Your task to perform on an android device: delete browsing data in the chrome app Image 0: 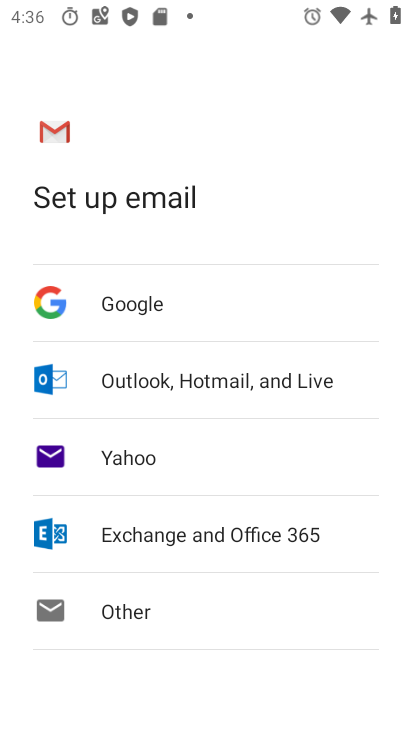
Step 0: press home button
Your task to perform on an android device: delete browsing data in the chrome app Image 1: 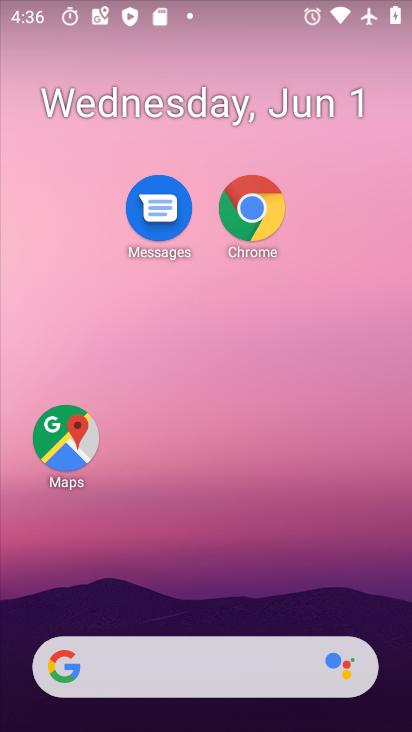
Step 1: click (262, 216)
Your task to perform on an android device: delete browsing data in the chrome app Image 2: 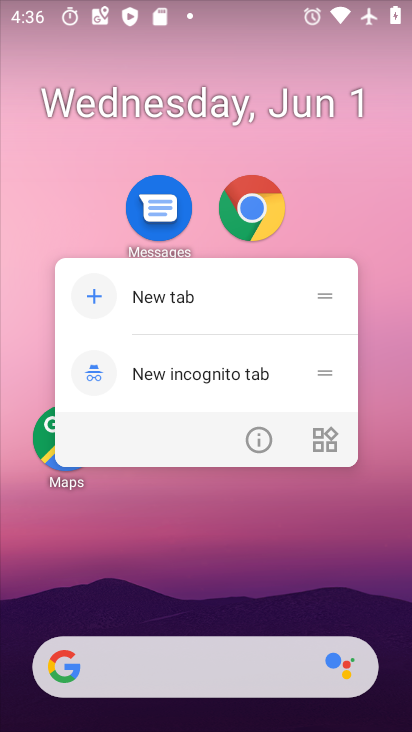
Step 2: click (262, 216)
Your task to perform on an android device: delete browsing data in the chrome app Image 3: 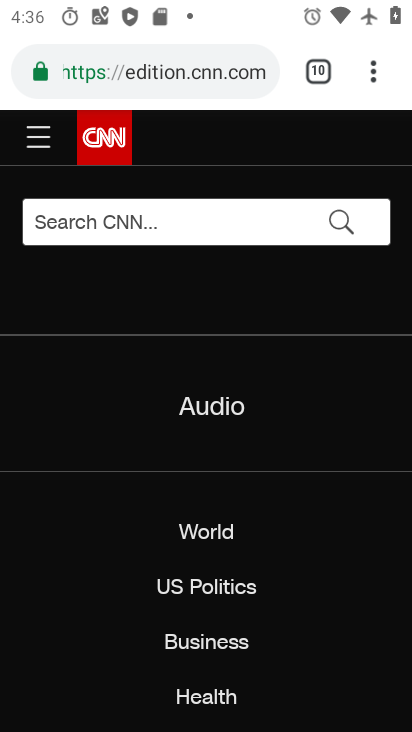
Step 3: drag from (368, 76) to (131, 385)
Your task to perform on an android device: delete browsing data in the chrome app Image 4: 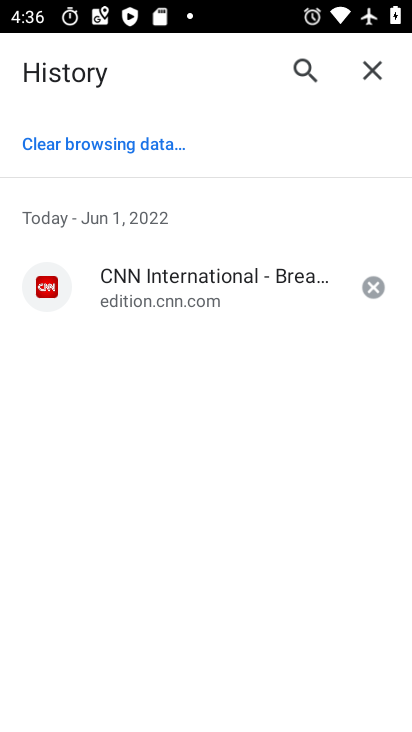
Step 4: click (168, 145)
Your task to perform on an android device: delete browsing data in the chrome app Image 5: 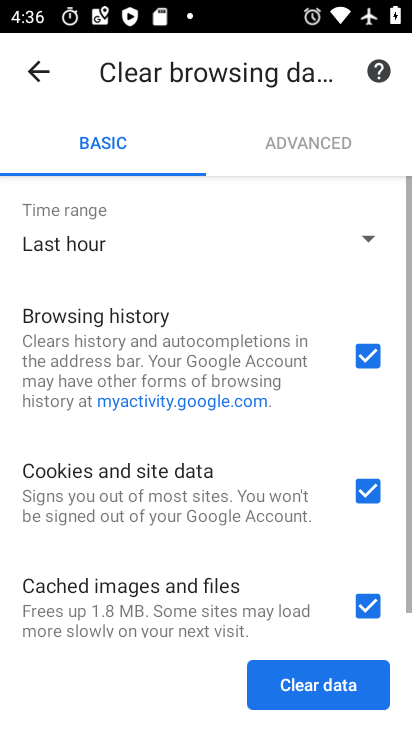
Step 5: click (280, 664)
Your task to perform on an android device: delete browsing data in the chrome app Image 6: 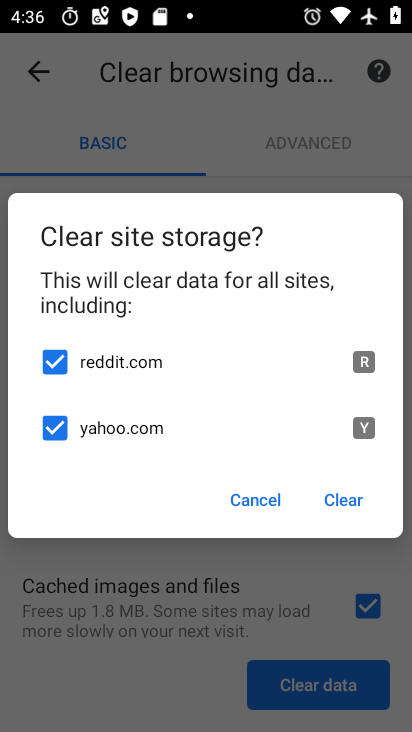
Step 6: click (344, 487)
Your task to perform on an android device: delete browsing data in the chrome app Image 7: 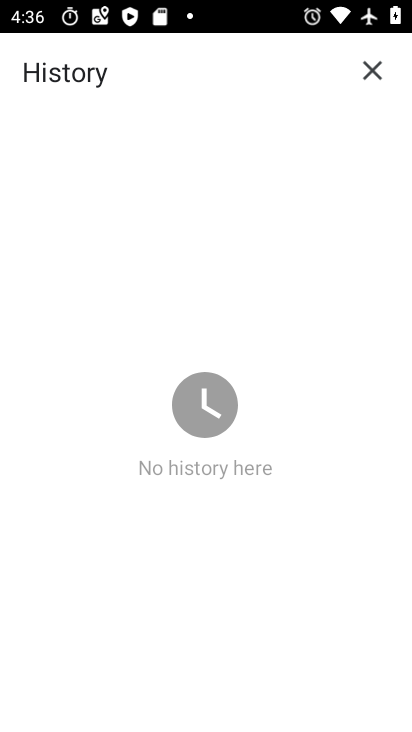
Step 7: task complete